Your task to perform on an android device: open chrome and create a bookmark for the current page Image 0: 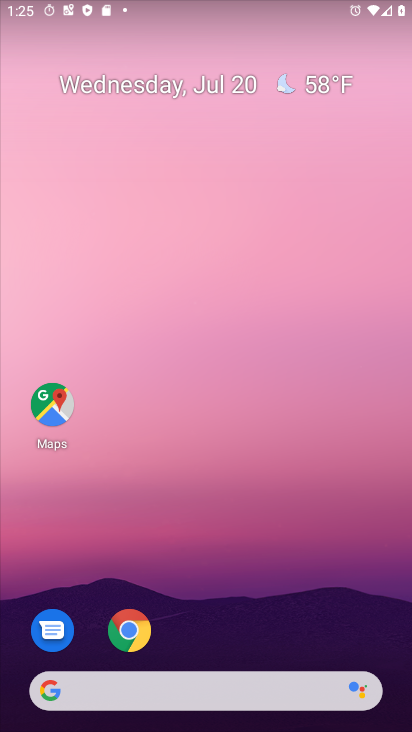
Step 0: press home button
Your task to perform on an android device: open chrome and create a bookmark for the current page Image 1: 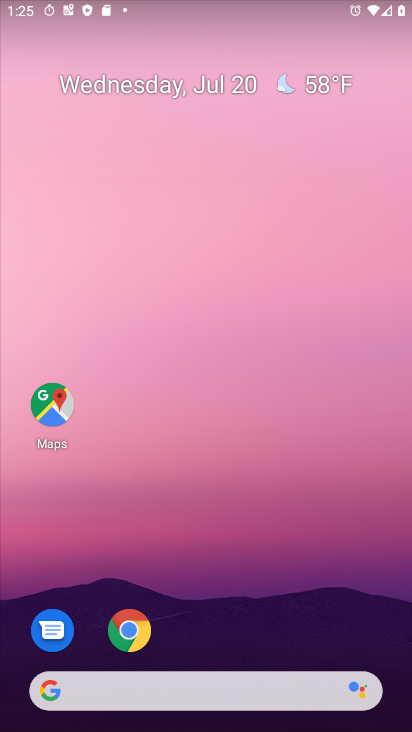
Step 1: click (125, 631)
Your task to perform on an android device: open chrome and create a bookmark for the current page Image 2: 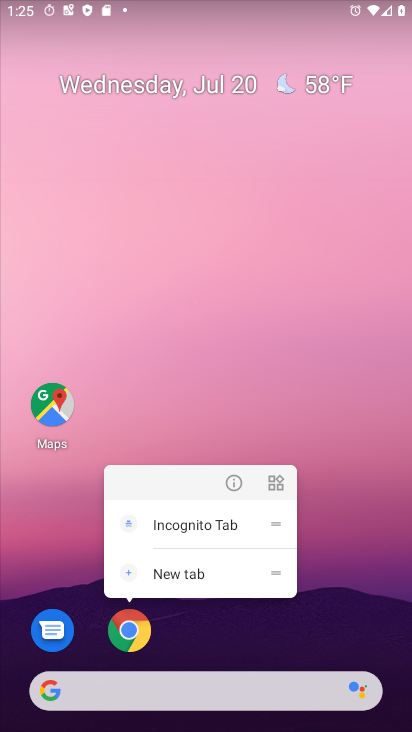
Step 2: click (133, 626)
Your task to perform on an android device: open chrome and create a bookmark for the current page Image 3: 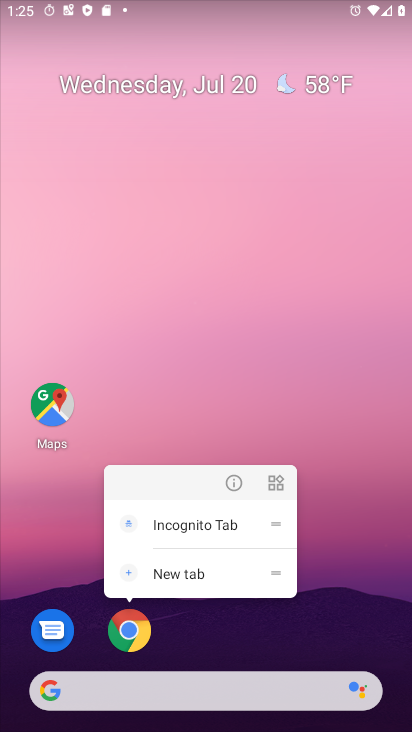
Step 3: click (127, 629)
Your task to perform on an android device: open chrome and create a bookmark for the current page Image 4: 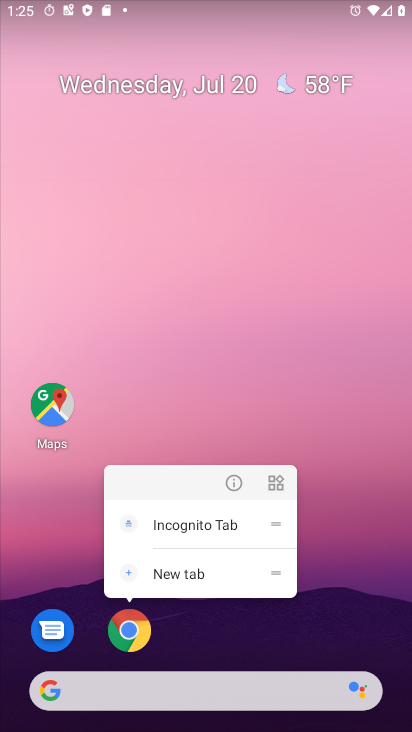
Step 4: click (127, 629)
Your task to perform on an android device: open chrome and create a bookmark for the current page Image 5: 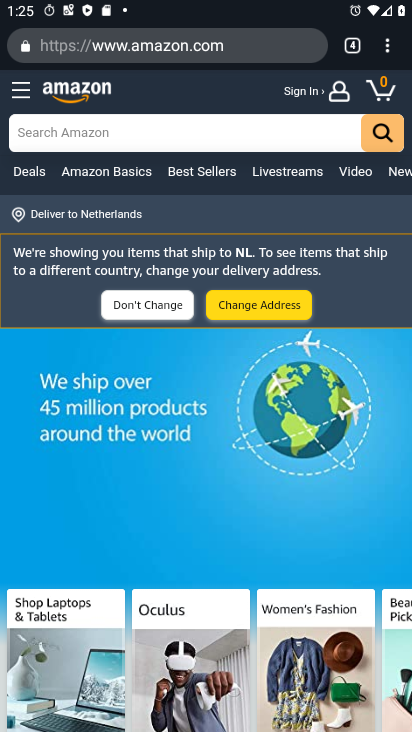
Step 5: click (387, 46)
Your task to perform on an android device: open chrome and create a bookmark for the current page Image 6: 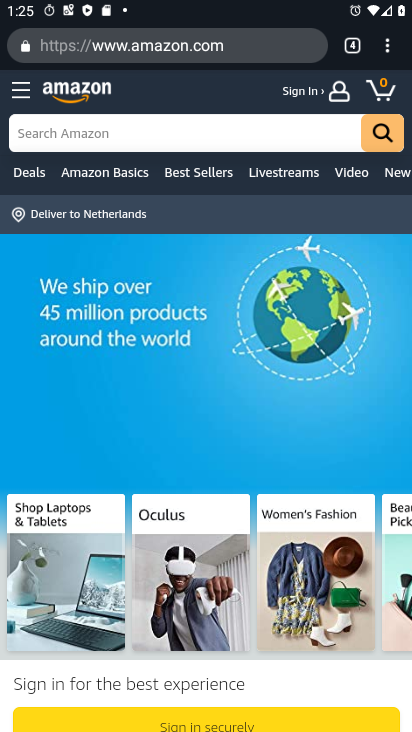
Step 6: click (383, 62)
Your task to perform on an android device: open chrome and create a bookmark for the current page Image 7: 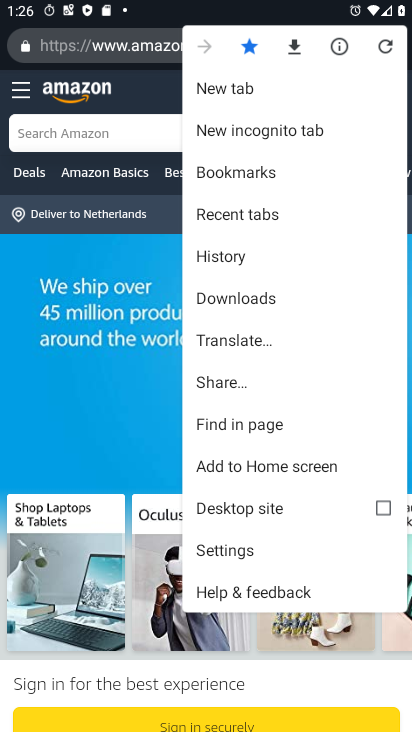
Step 7: task complete